Your task to perform on an android device: delete the emails in spam in the gmail app Image 0: 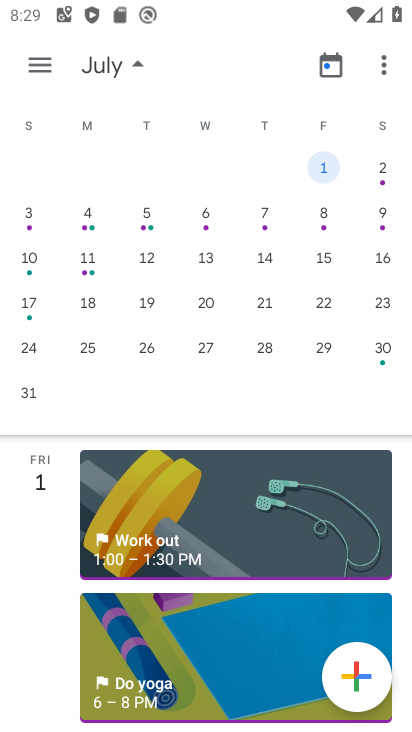
Step 0: press home button
Your task to perform on an android device: delete the emails in spam in the gmail app Image 1: 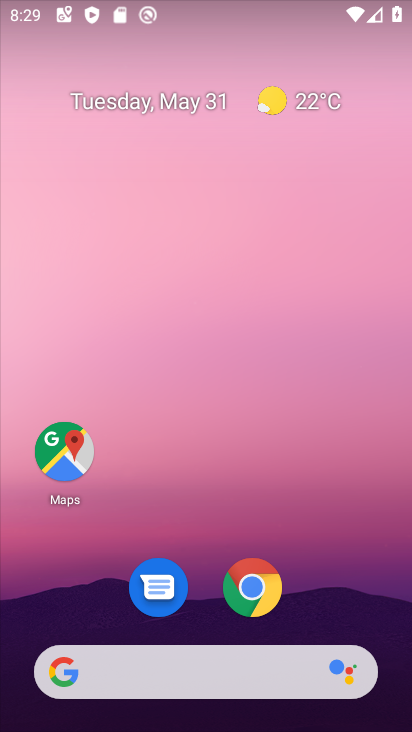
Step 1: drag from (184, 621) to (310, 5)
Your task to perform on an android device: delete the emails in spam in the gmail app Image 2: 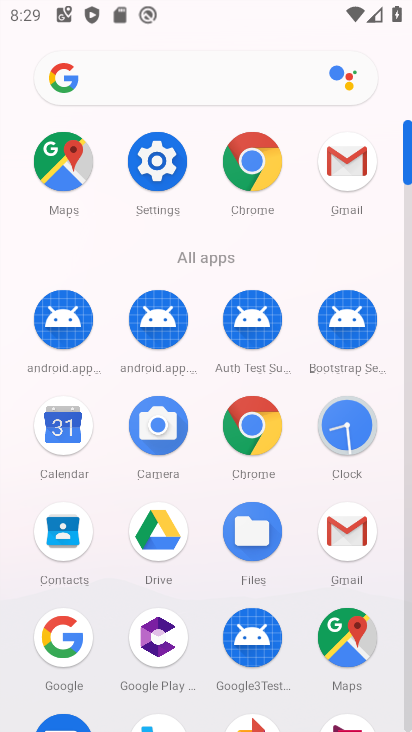
Step 2: click (338, 175)
Your task to perform on an android device: delete the emails in spam in the gmail app Image 3: 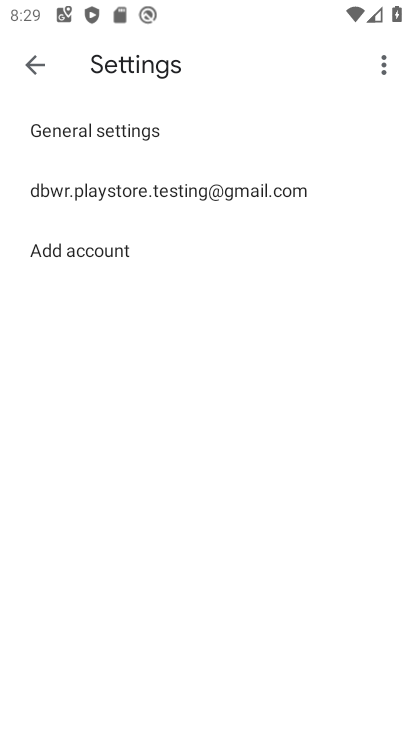
Step 3: click (36, 79)
Your task to perform on an android device: delete the emails in spam in the gmail app Image 4: 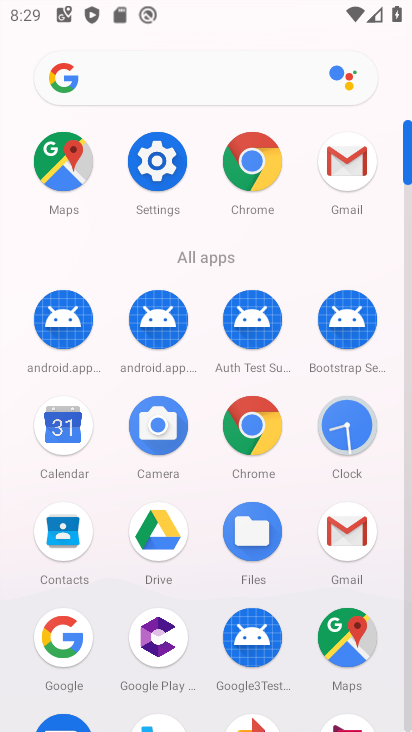
Step 4: click (365, 151)
Your task to perform on an android device: delete the emails in spam in the gmail app Image 5: 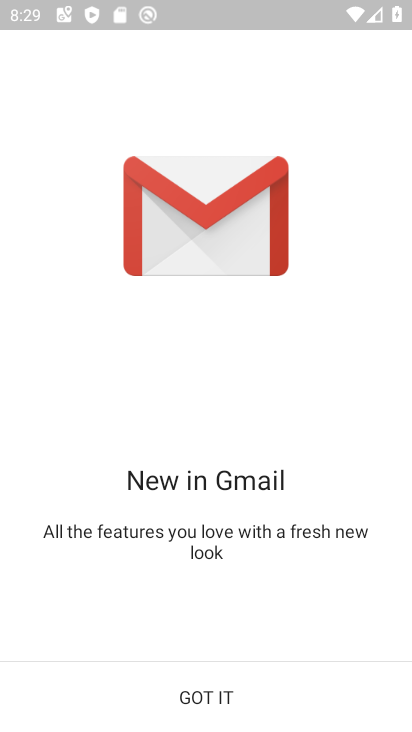
Step 5: click (159, 701)
Your task to perform on an android device: delete the emails in spam in the gmail app Image 6: 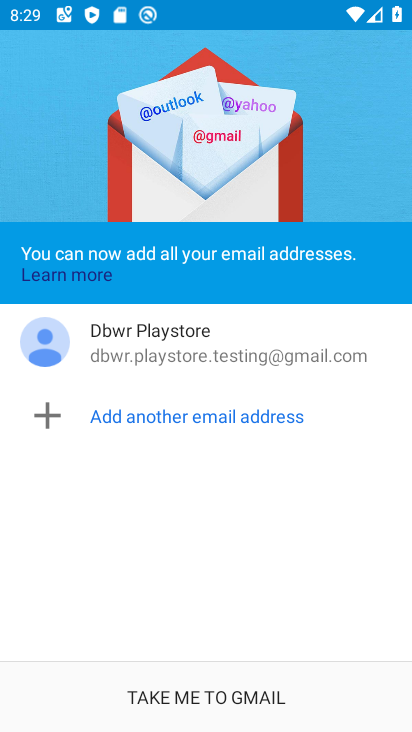
Step 6: click (159, 701)
Your task to perform on an android device: delete the emails in spam in the gmail app Image 7: 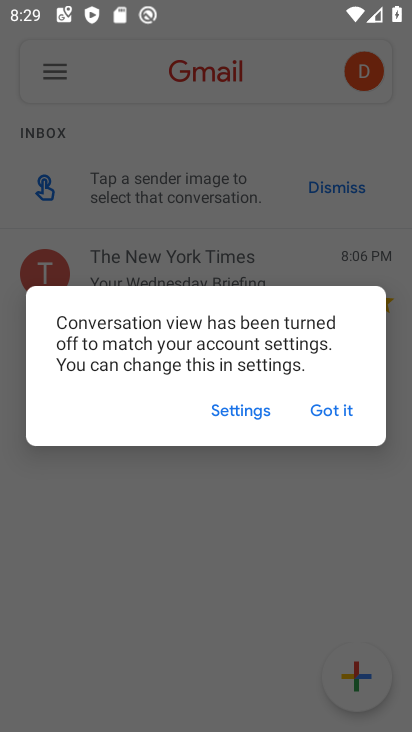
Step 7: click (330, 413)
Your task to perform on an android device: delete the emails in spam in the gmail app Image 8: 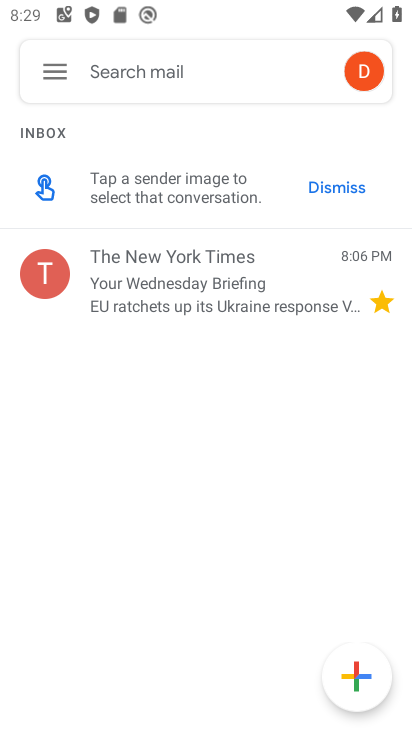
Step 8: click (56, 290)
Your task to perform on an android device: delete the emails in spam in the gmail app Image 9: 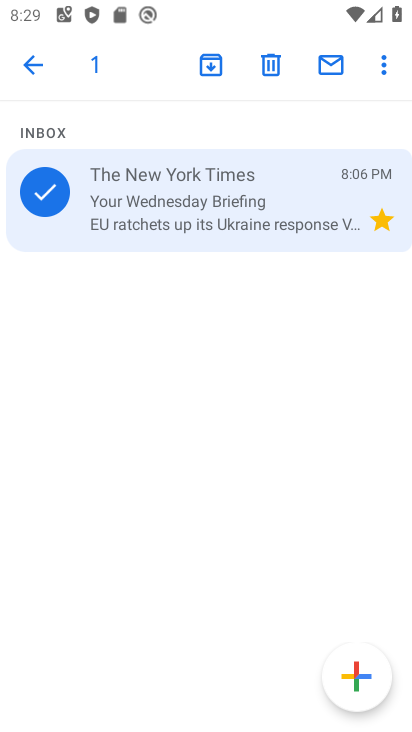
Step 9: click (273, 54)
Your task to perform on an android device: delete the emails in spam in the gmail app Image 10: 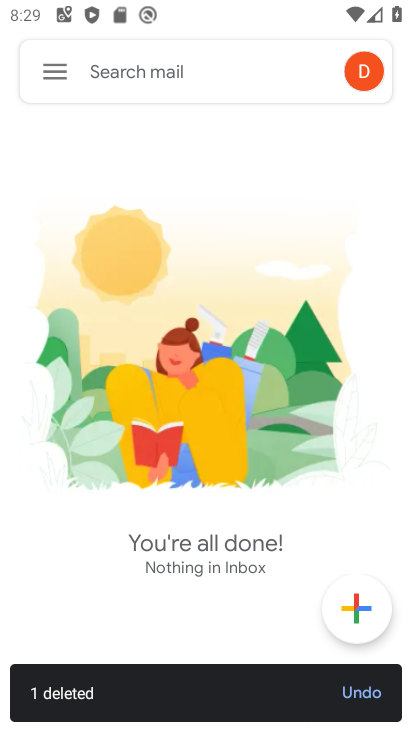
Step 10: task complete